Your task to perform on an android device: move a message to another label in the gmail app Image 0: 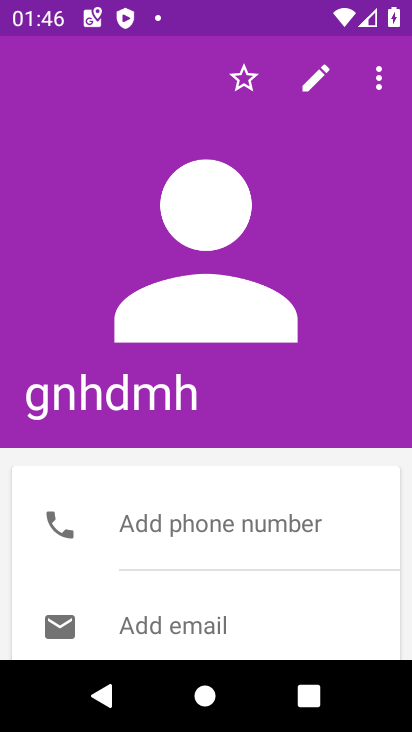
Step 0: press home button
Your task to perform on an android device: move a message to another label in the gmail app Image 1: 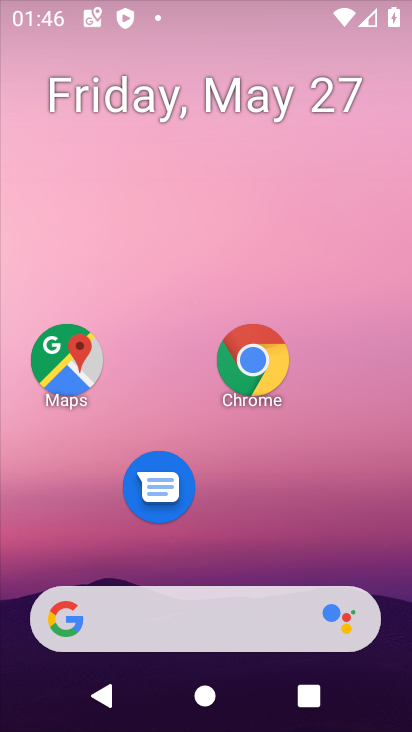
Step 1: drag from (242, 498) to (245, 82)
Your task to perform on an android device: move a message to another label in the gmail app Image 2: 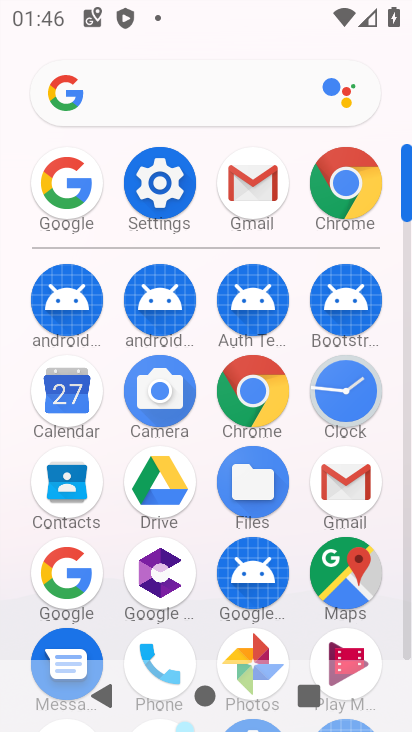
Step 2: click (247, 184)
Your task to perform on an android device: move a message to another label in the gmail app Image 3: 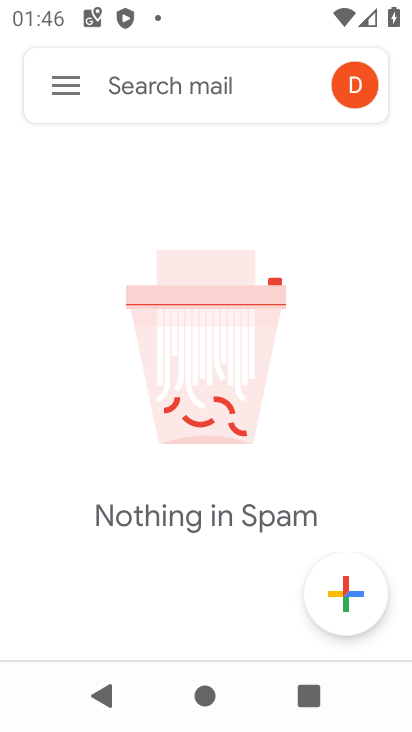
Step 3: click (65, 78)
Your task to perform on an android device: move a message to another label in the gmail app Image 4: 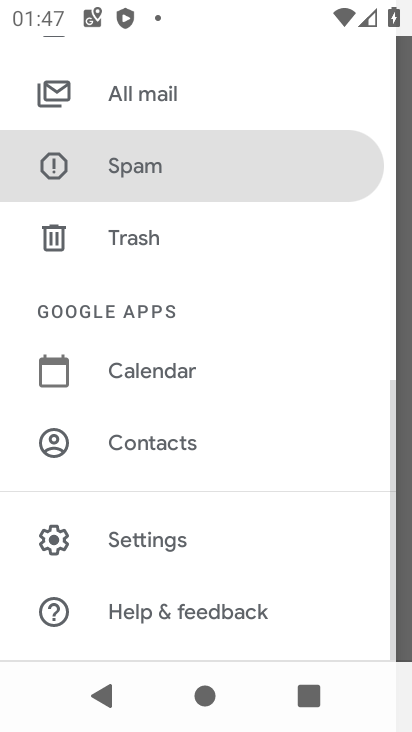
Step 4: click (136, 93)
Your task to perform on an android device: move a message to another label in the gmail app Image 5: 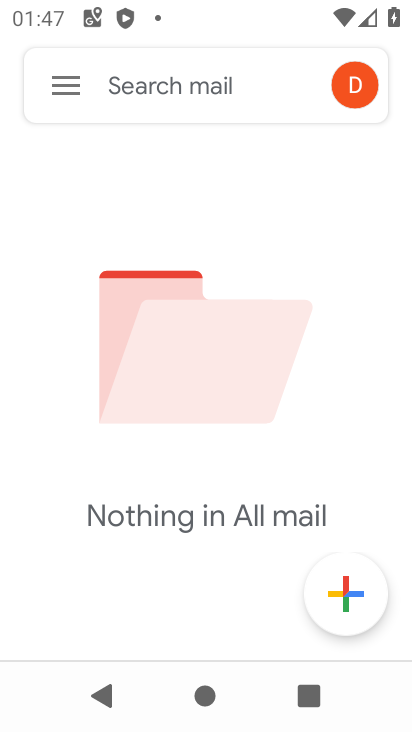
Step 5: task complete